Your task to perform on an android device: set the timer Image 0: 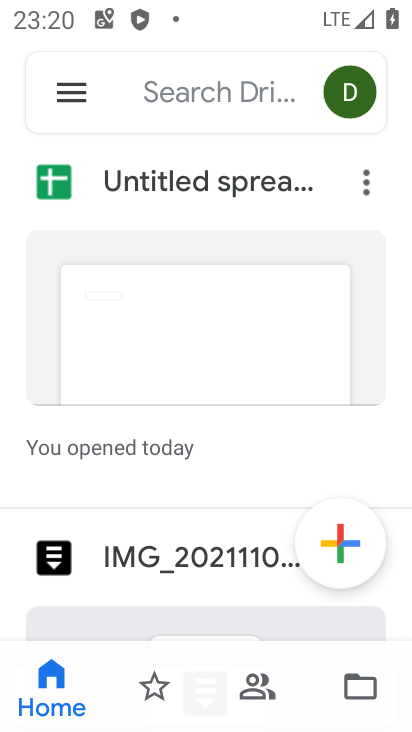
Step 0: press home button
Your task to perform on an android device: set the timer Image 1: 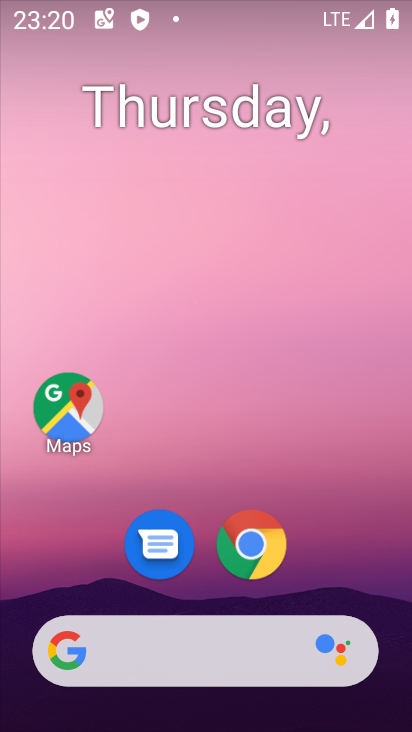
Step 1: drag from (272, 495) to (132, 152)
Your task to perform on an android device: set the timer Image 2: 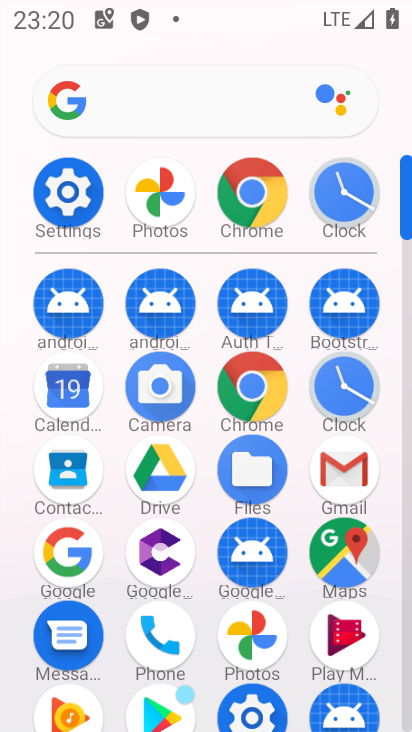
Step 2: click (348, 403)
Your task to perform on an android device: set the timer Image 3: 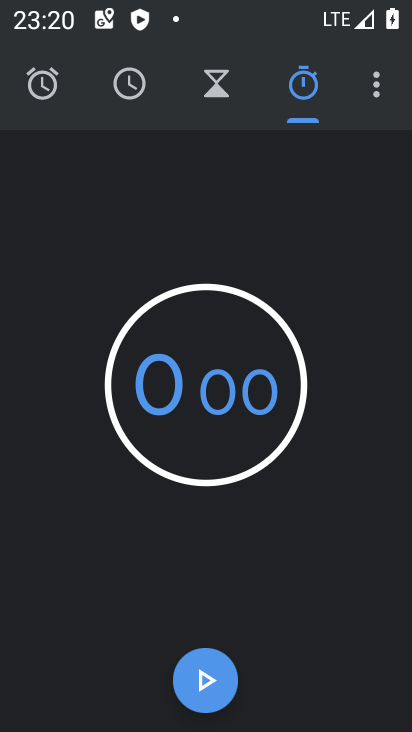
Step 3: click (65, 89)
Your task to perform on an android device: set the timer Image 4: 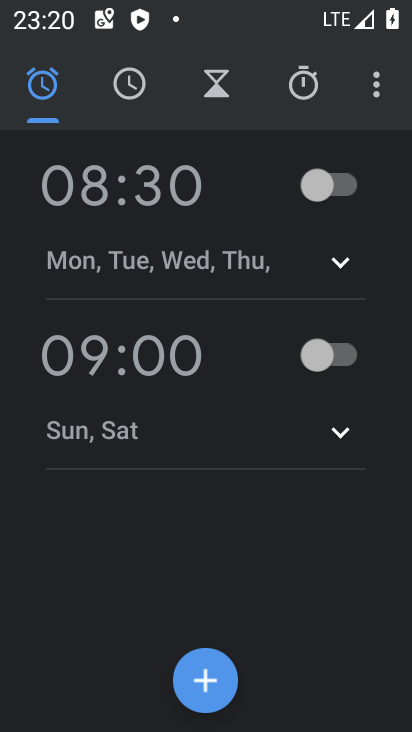
Step 4: click (119, 84)
Your task to perform on an android device: set the timer Image 5: 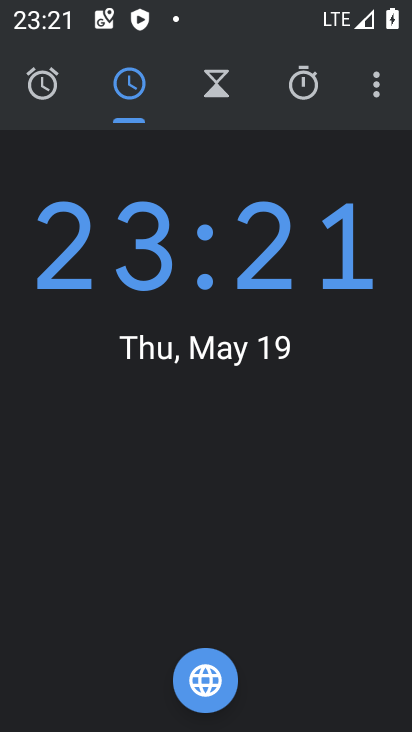
Step 5: click (217, 96)
Your task to perform on an android device: set the timer Image 6: 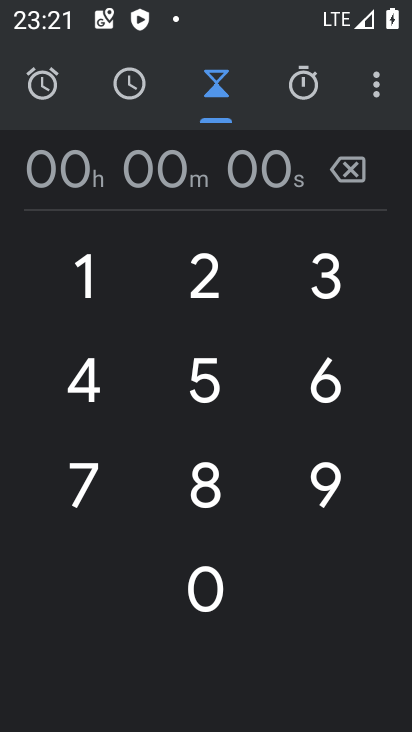
Step 6: click (208, 601)
Your task to perform on an android device: set the timer Image 7: 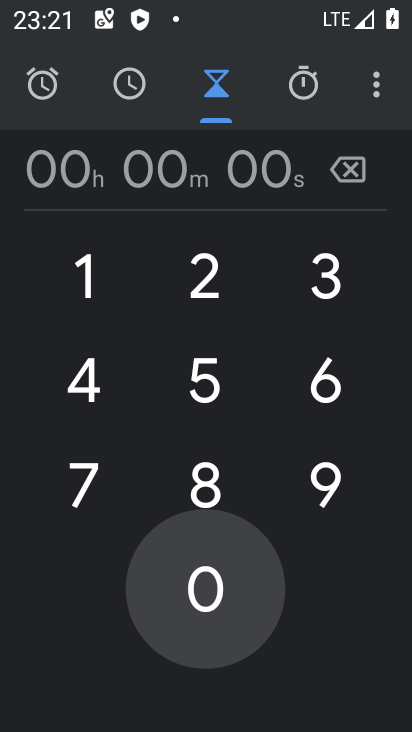
Step 7: click (208, 495)
Your task to perform on an android device: set the timer Image 8: 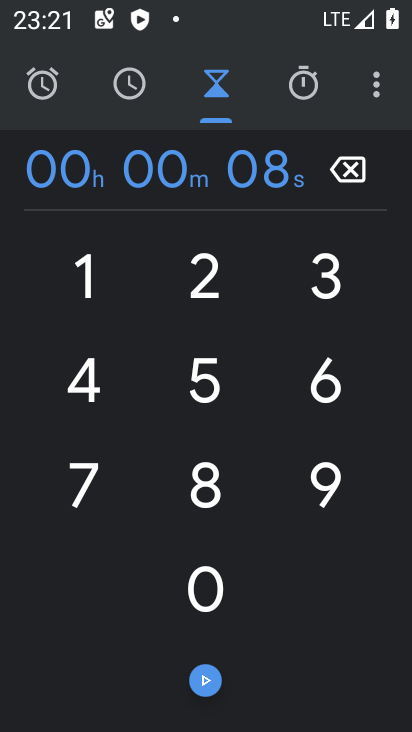
Step 8: click (91, 374)
Your task to perform on an android device: set the timer Image 9: 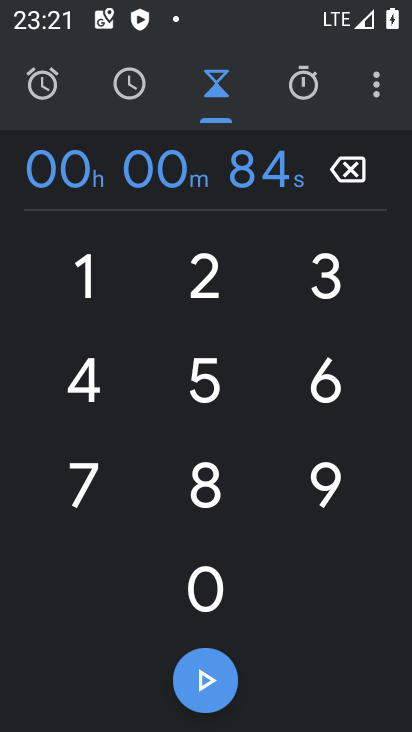
Step 9: click (315, 273)
Your task to perform on an android device: set the timer Image 10: 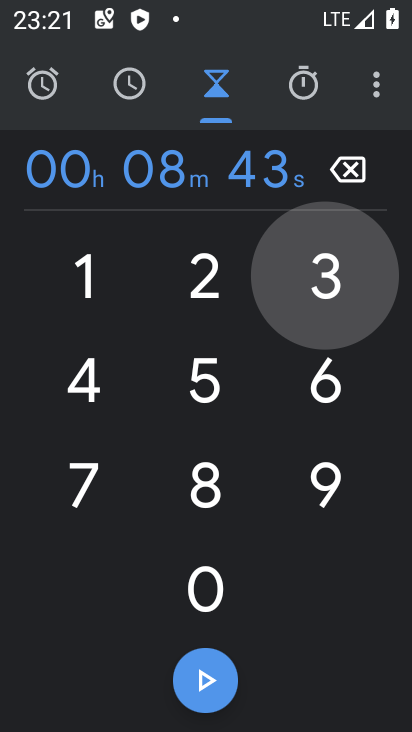
Step 10: click (184, 353)
Your task to perform on an android device: set the timer Image 11: 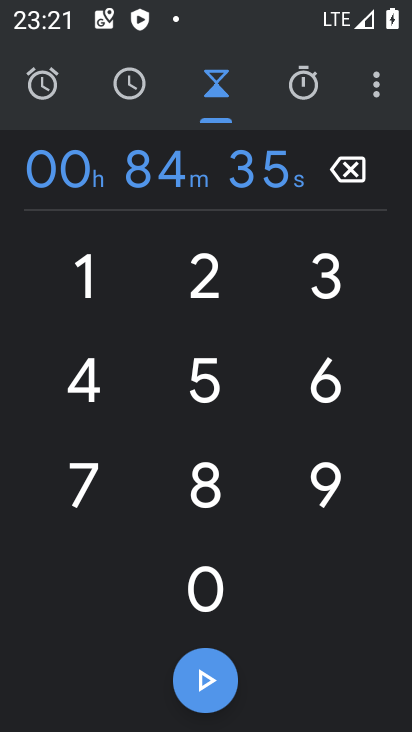
Step 11: click (93, 268)
Your task to perform on an android device: set the timer Image 12: 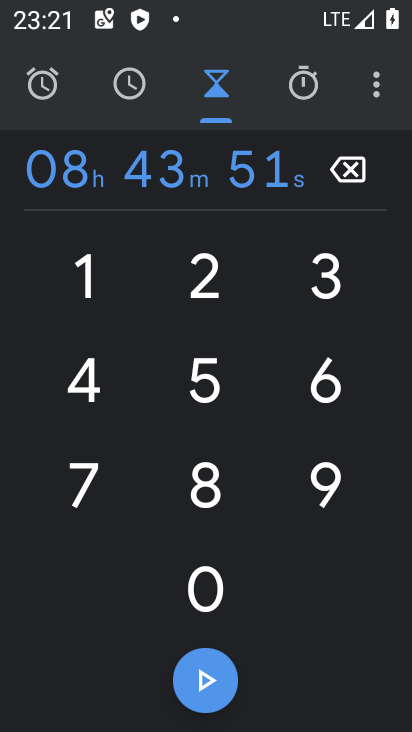
Step 12: click (326, 486)
Your task to perform on an android device: set the timer Image 13: 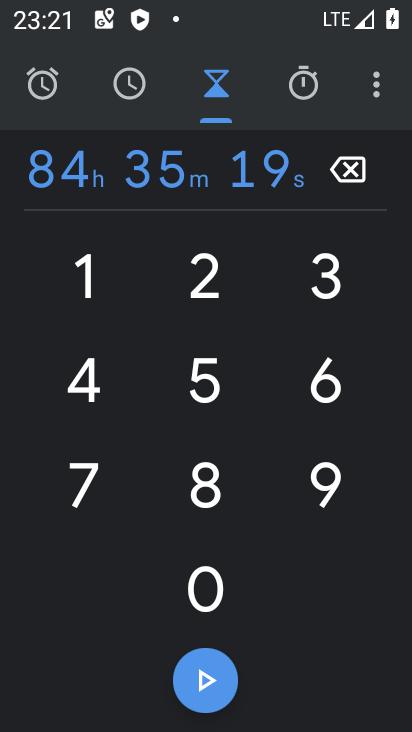
Step 13: click (211, 694)
Your task to perform on an android device: set the timer Image 14: 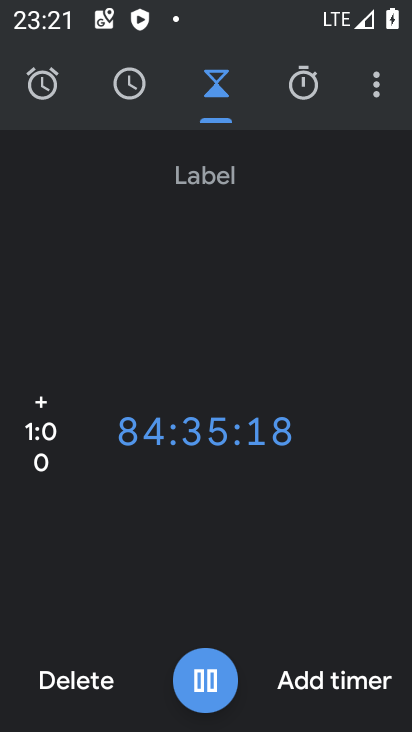
Step 14: click (373, 686)
Your task to perform on an android device: set the timer Image 15: 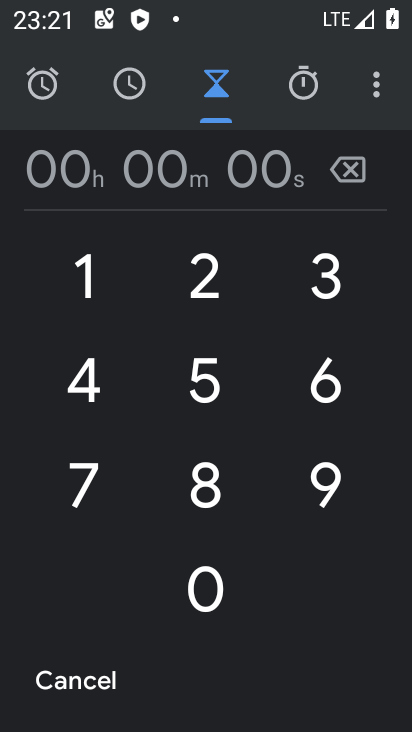
Step 15: task complete